Your task to perform on an android device: Open calendar and show me the third week of next month Image 0: 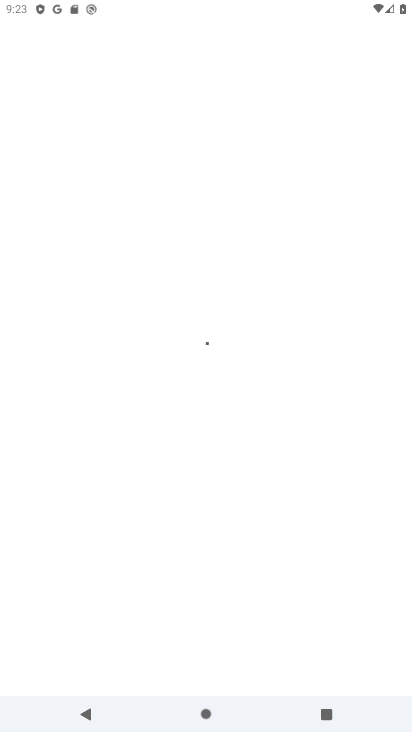
Step 0: press home button
Your task to perform on an android device: Open calendar and show me the third week of next month Image 1: 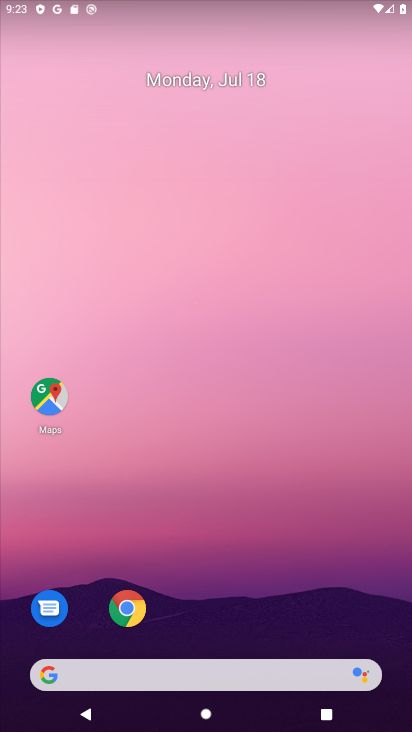
Step 1: drag from (194, 617) to (180, 240)
Your task to perform on an android device: Open calendar and show me the third week of next month Image 2: 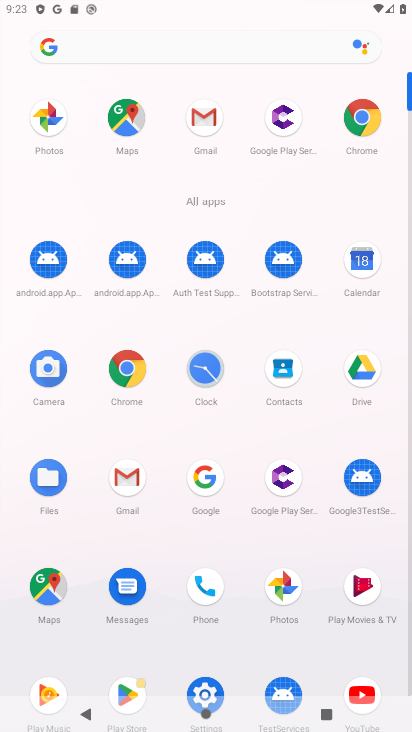
Step 2: click (350, 279)
Your task to perform on an android device: Open calendar and show me the third week of next month Image 3: 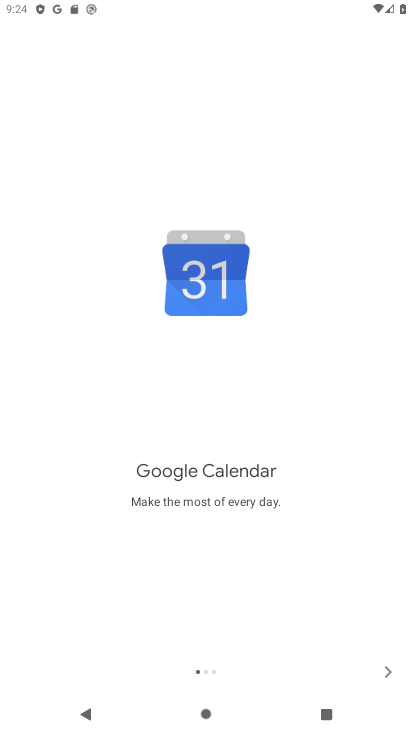
Step 3: click (385, 673)
Your task to perform on an android device: Open calendar and show me the third week of next month Image 4: 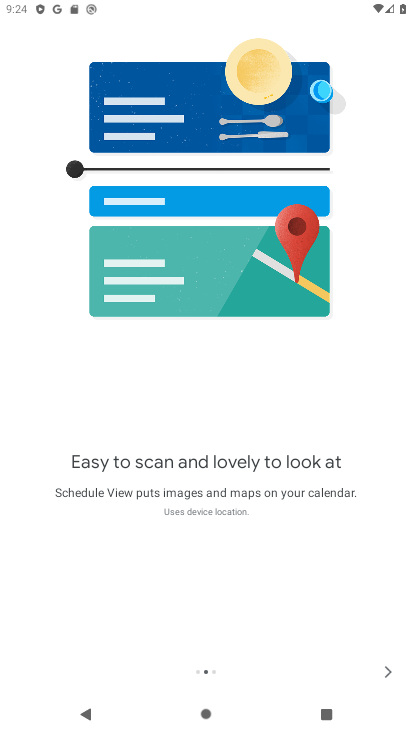
Step 4: click (385, 673)
Your task to perform on an android device: Open calendar and show me the third week of next month Image 5: 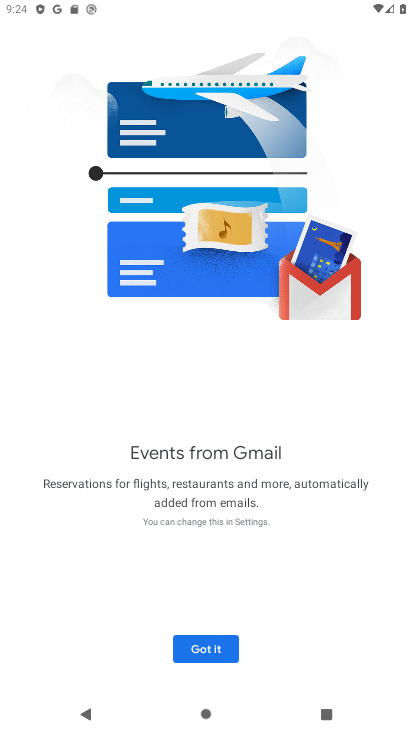
Step 5: click (204, 649)
Your task to perform on an android device: Open calendar and show me the third week of next month Image 6: 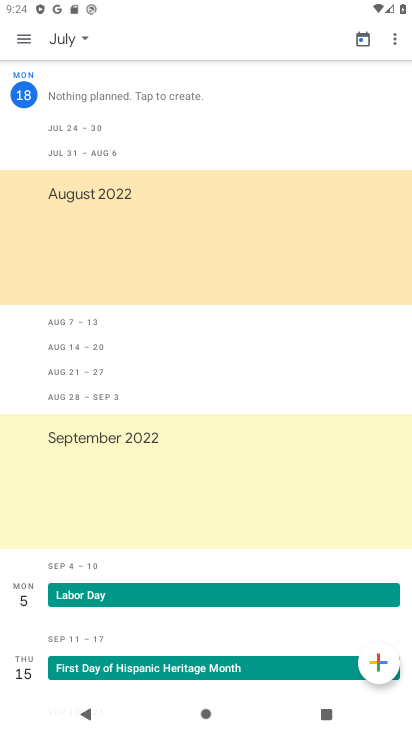
Step 6: click (64, 46)
Your task to perform on an android device: Open calendar and show me the third week of next month Image 7: 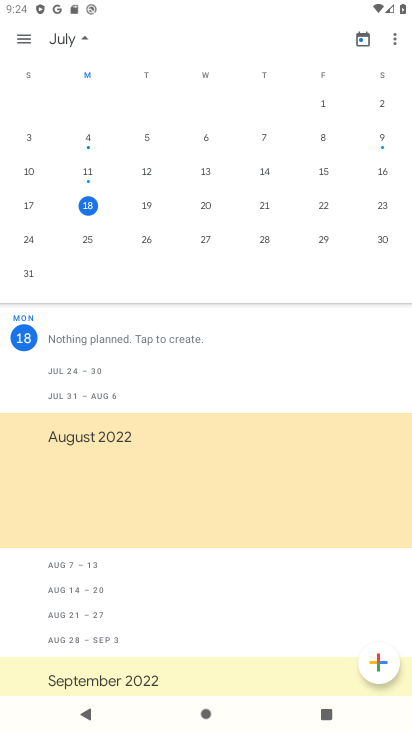
Step 7: drag from (289, 176) to (20, 226)
Your task to perform on an android device: Open calendar and show me the third week of next month Image 8: 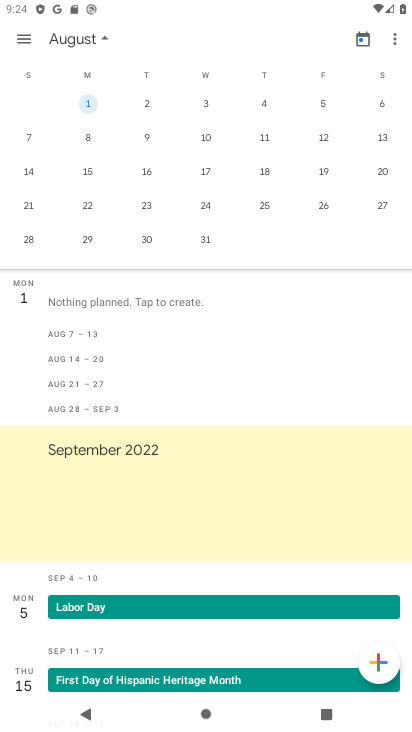
Step 8: click (34, 170)
Your task to perform on an android device: Open calendar and show me the third week of next month Image 9: 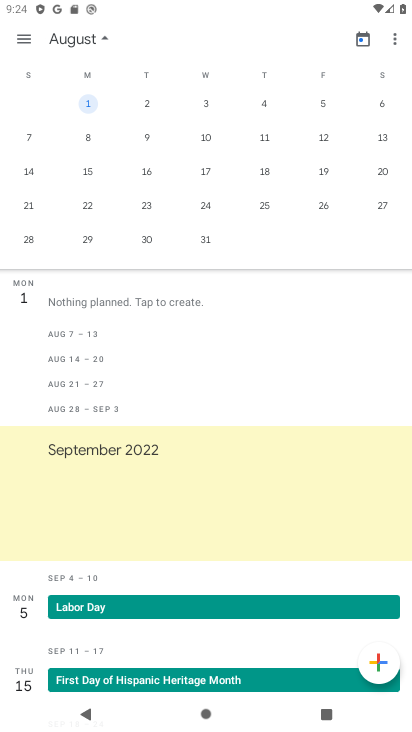
Step 9: click (34, 170)
Your task to perform on an android device: Open calendar and show me the third week of next month Image 10: 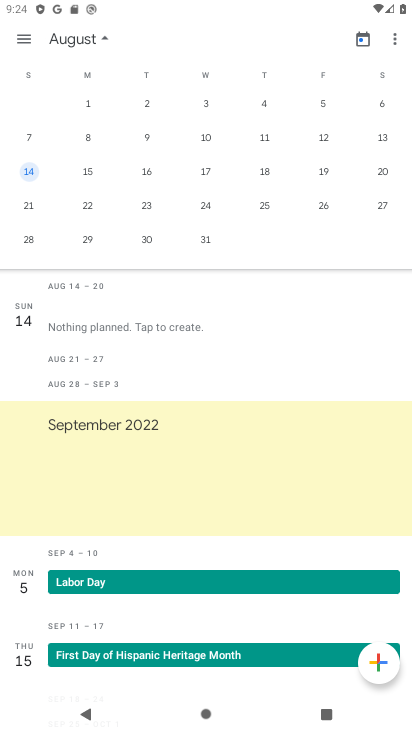
Step 10: click (18, 33)
Your task to perform on an android device: Open calendar and show me the third week of next month Image 11: 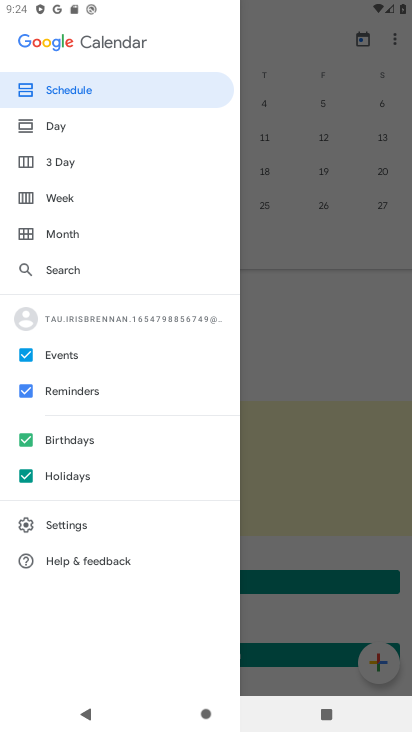
Step 11: click (51, 200)
Your task to perform on an android device: Open calendar and show me the third week of next month Image 12: 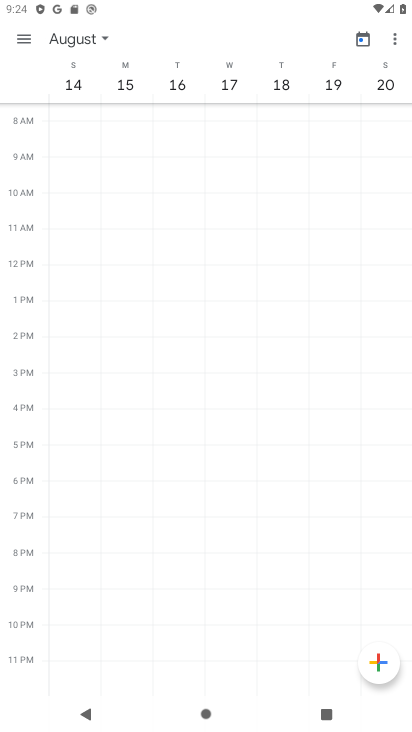
Step 12: task complete